Your task to perform on an android device: turn off smart reply in the gmail app Image 0: 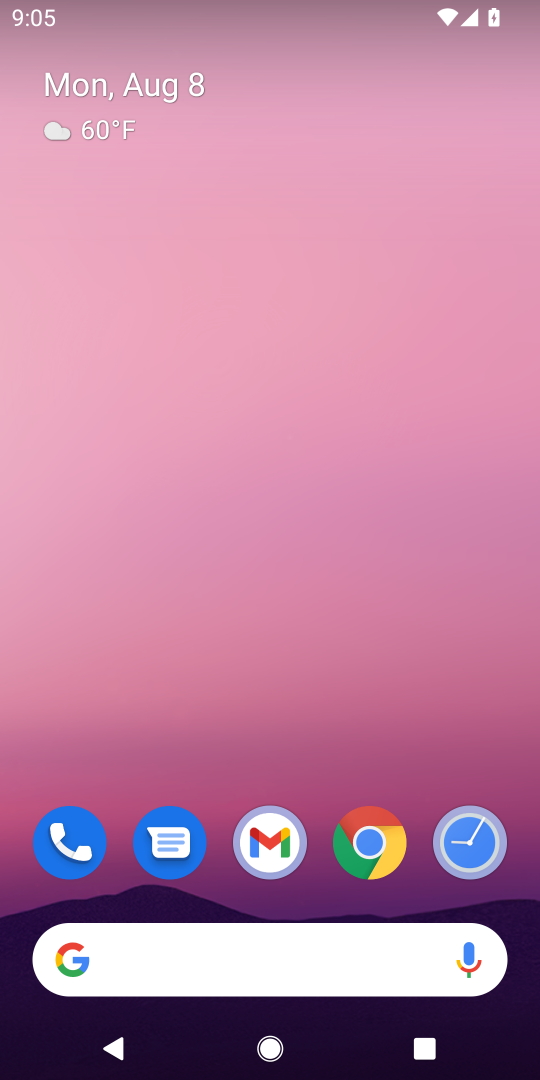
Step 0: click (269, 840)
Your task to perform on an android device: turn off smart reply in the gmail app Image 1: 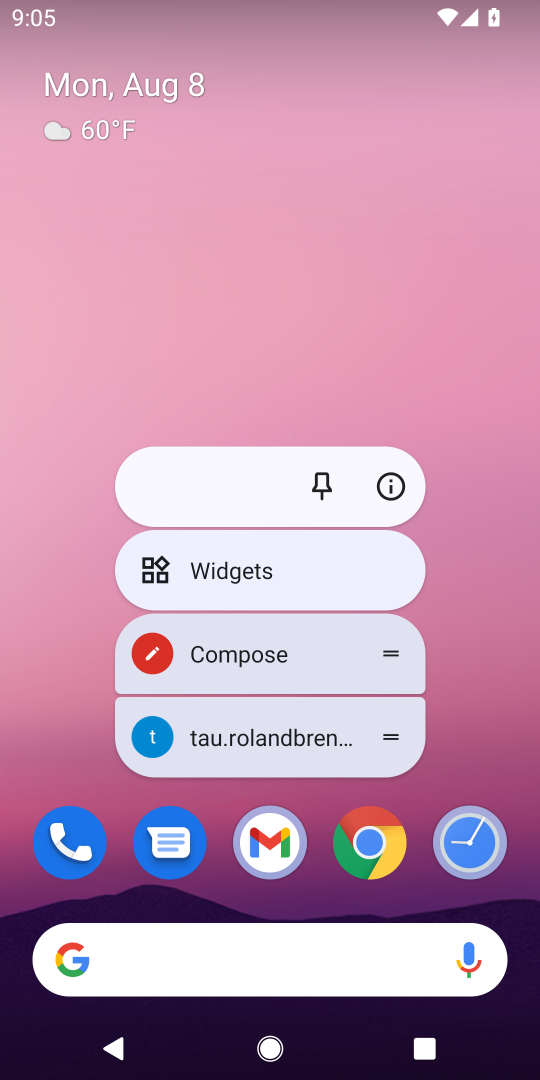
Step 1: click (269, 840)
Your task to perform on an android device: turn off smart reply in the gmail app Image 2: 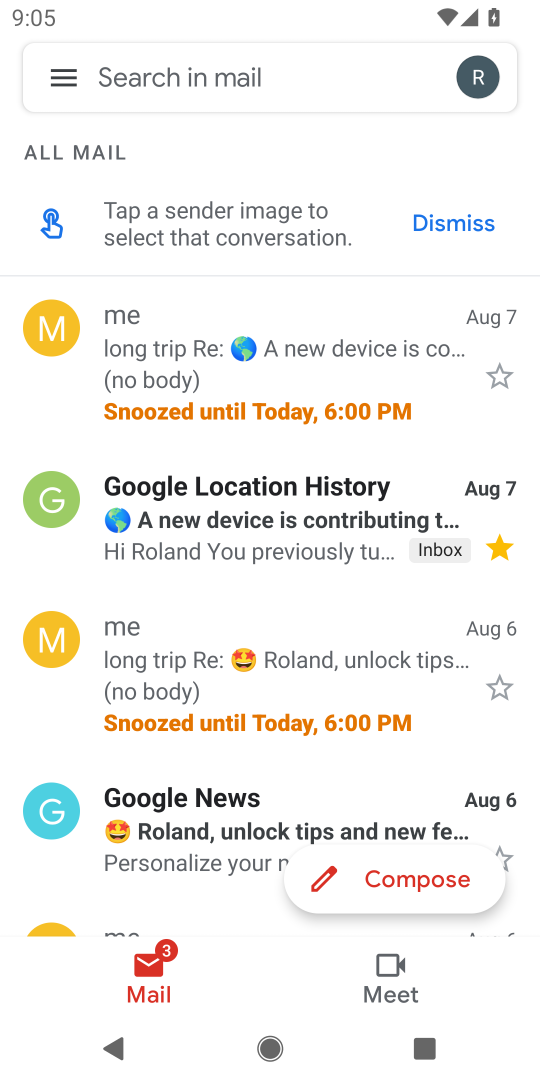
Step 2: click (70, 92)
Your task to perform on an android device: turn off smart reply in the gmail app Image 3: 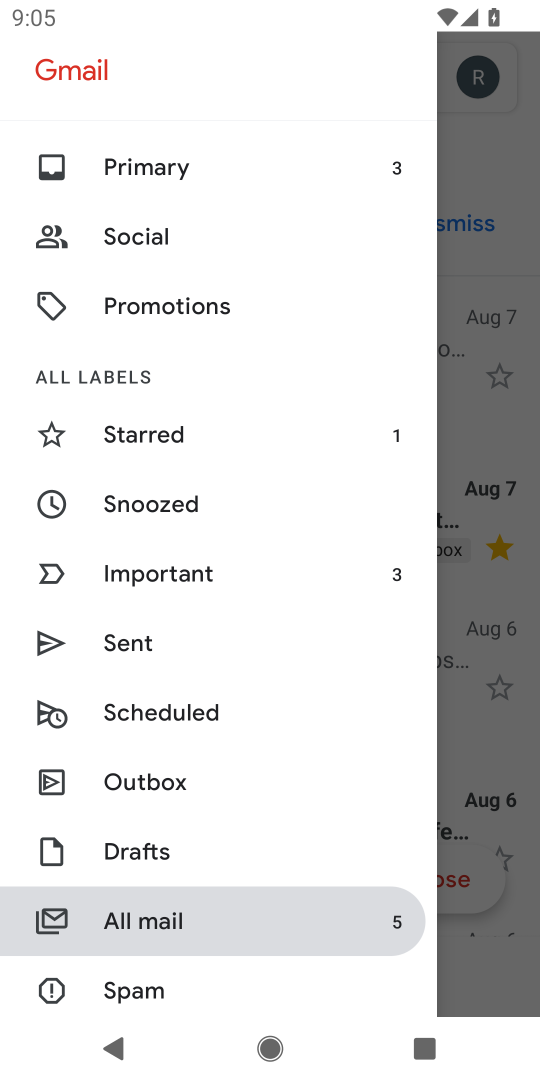
Step 3: drag from (159, 858) to (100, 160)
Your task to perform on an android device: turn off smart reply in the gmail app Image 4: 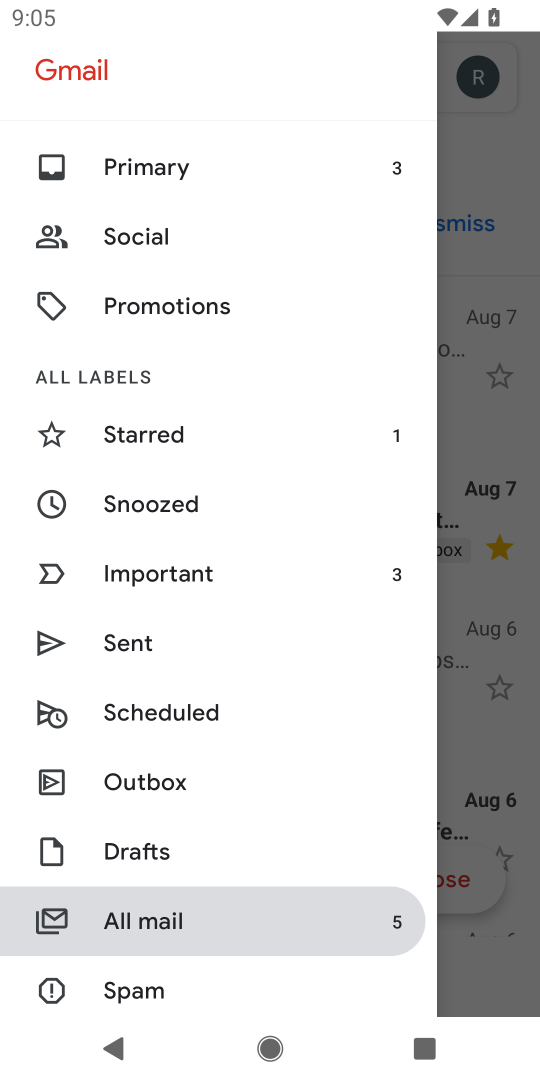
Step 4: drag from (161, 832) to (186, 29)
Your task to perform on an android device: turn off smart reply in the gmail app Image 5: 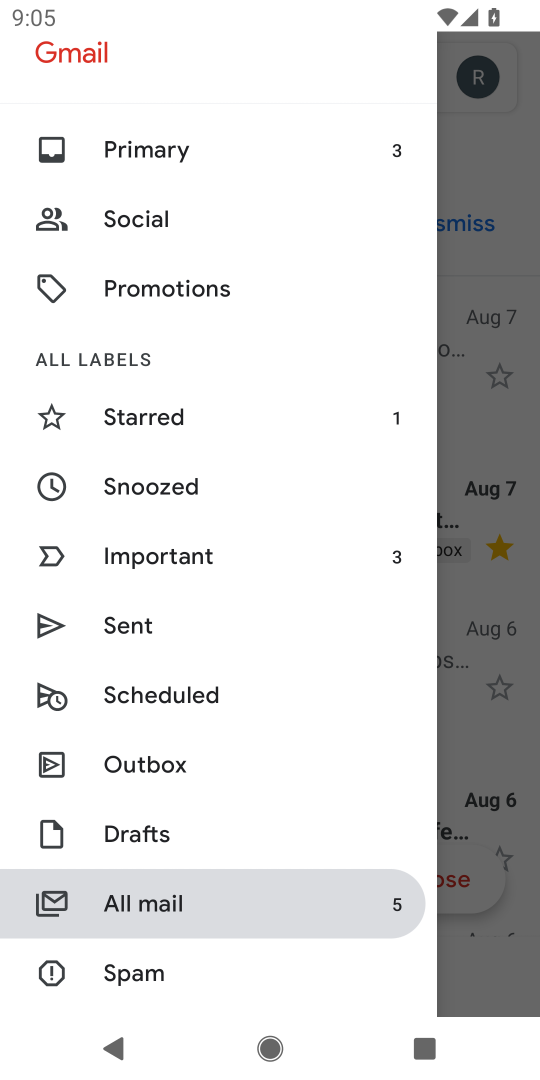
Step 5: drag from (221, 599) to (221, 195)
Your task to perform on an android device: turn off smart reply in the gmail app Image 6: 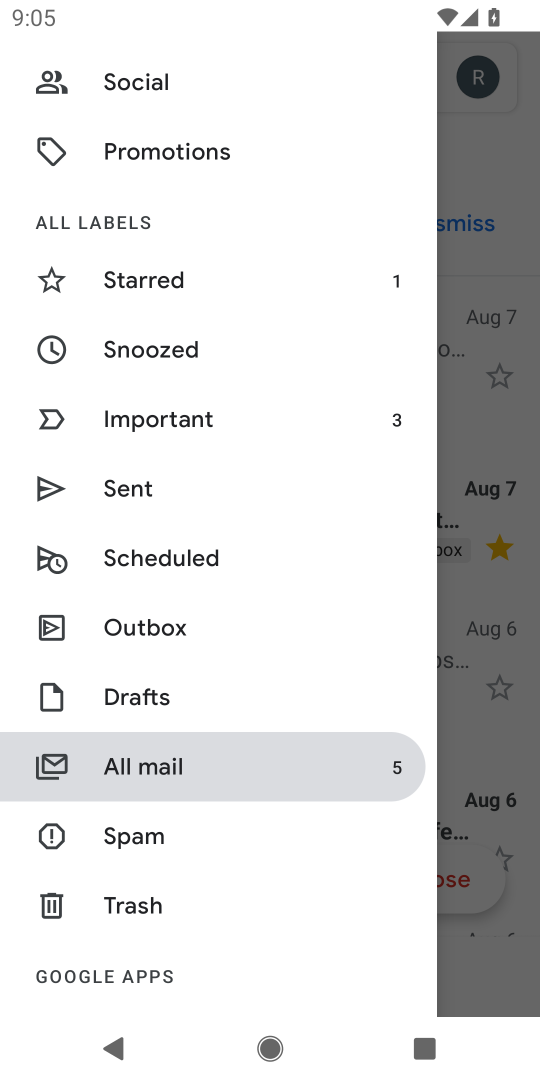
Step 6: drag from (263, 852) to (245, 213)
Your task to perform on an android device: turn off smart reply in the gmail app Image 7: 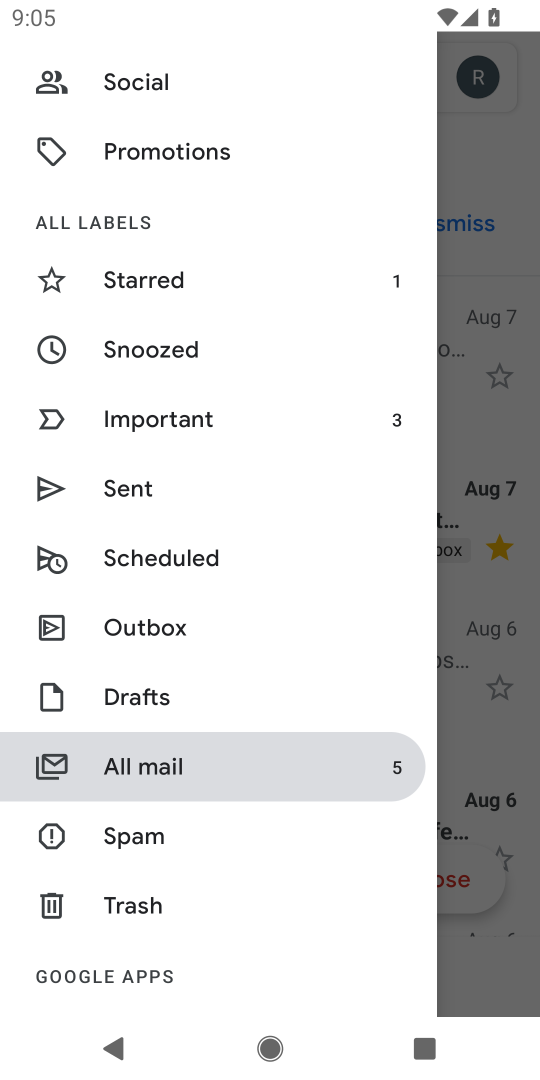
Step 7: drag from (156, 874) to (107, 391)
Your task to perform on an android device: turn off smart reply in the gmail app Image 8: 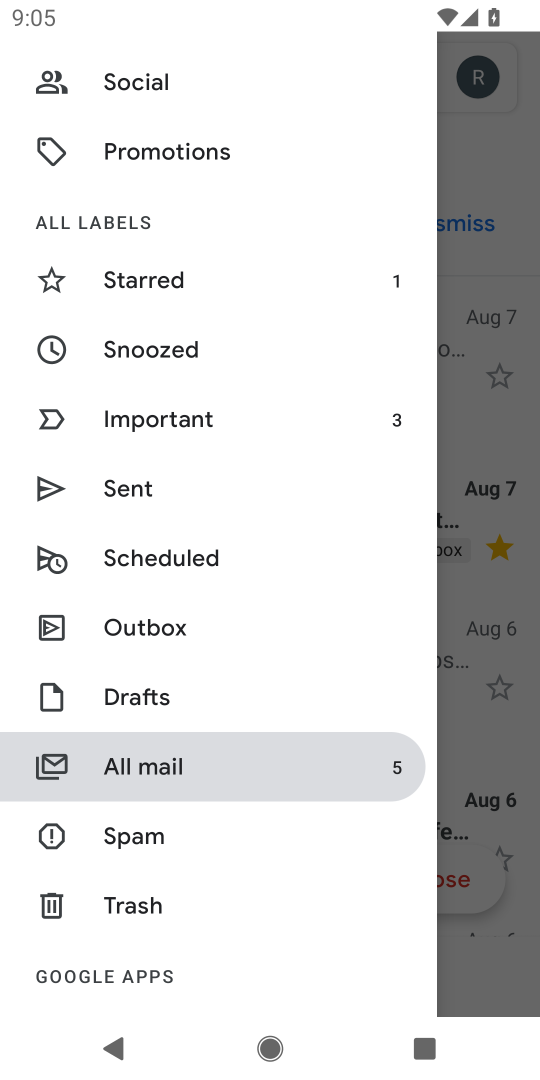
Step 8: drag from (208, 913) to (205, 269)
Your task to perform on an android device: turn off smart reply in the gmail app Image 9: 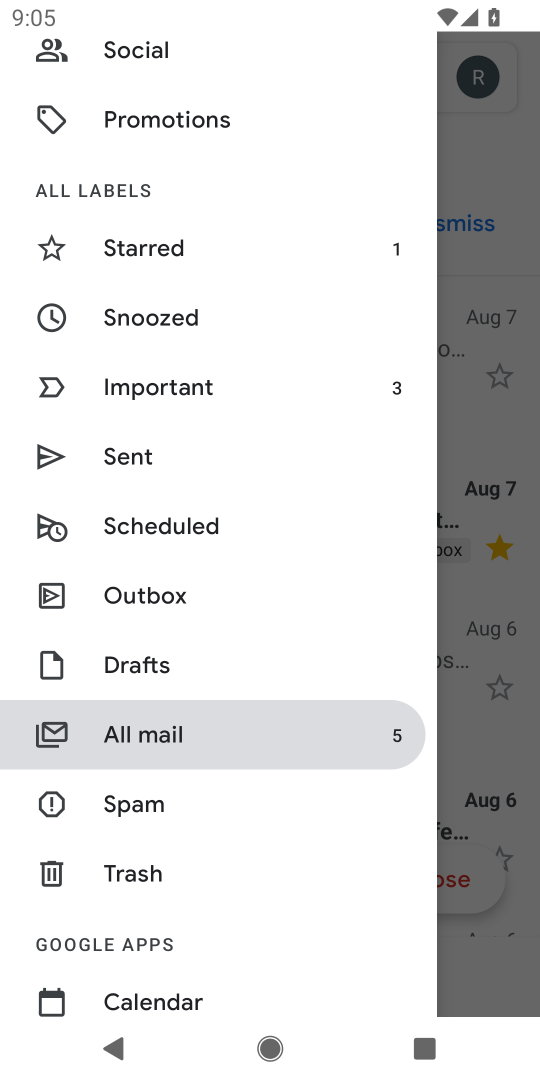
Step 9: drag from (209, 964) to (179, 351)
Your task to perform on an android device: turn off smart reply in the gmail app Image 10: 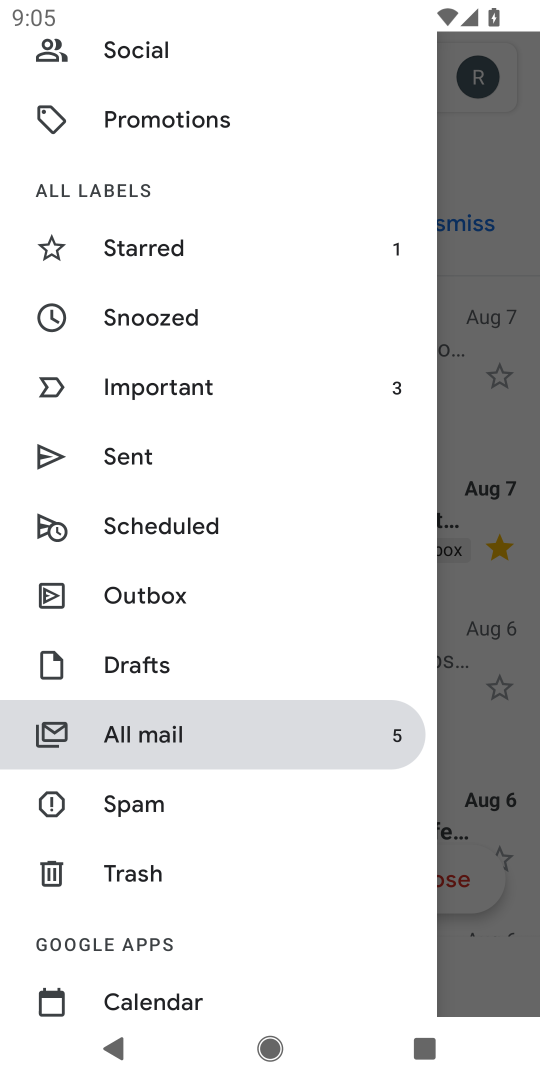
Step 10: drag from (191, 727) to (177, 93)
Your task to perform on an android device: turn off smart reply in the gmail app Image 11: 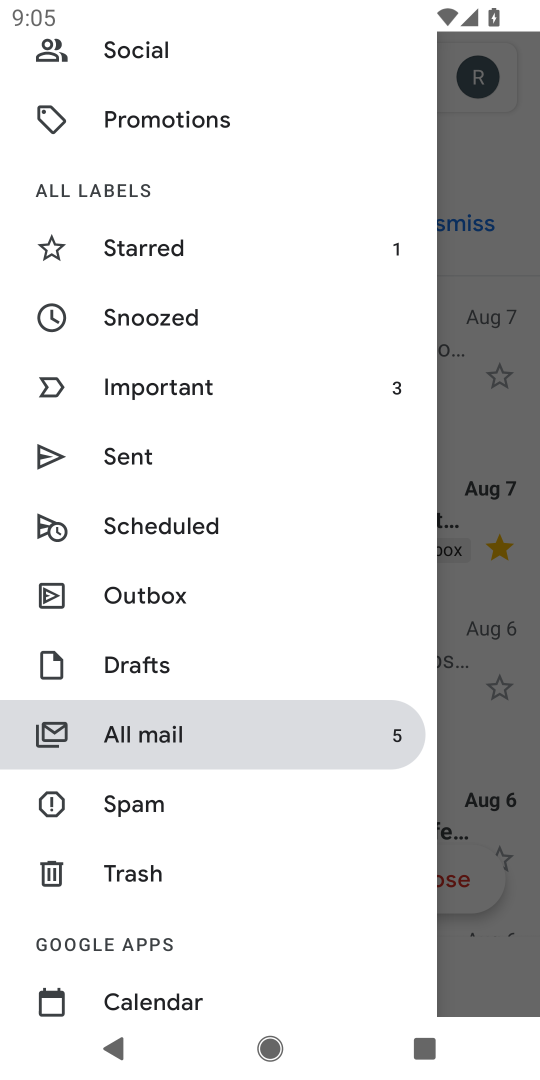
Step 11: drag from (208, 950) to (115, 316)
Your task to perform on an android device: turn off smart reply in the gmail app Image 12: 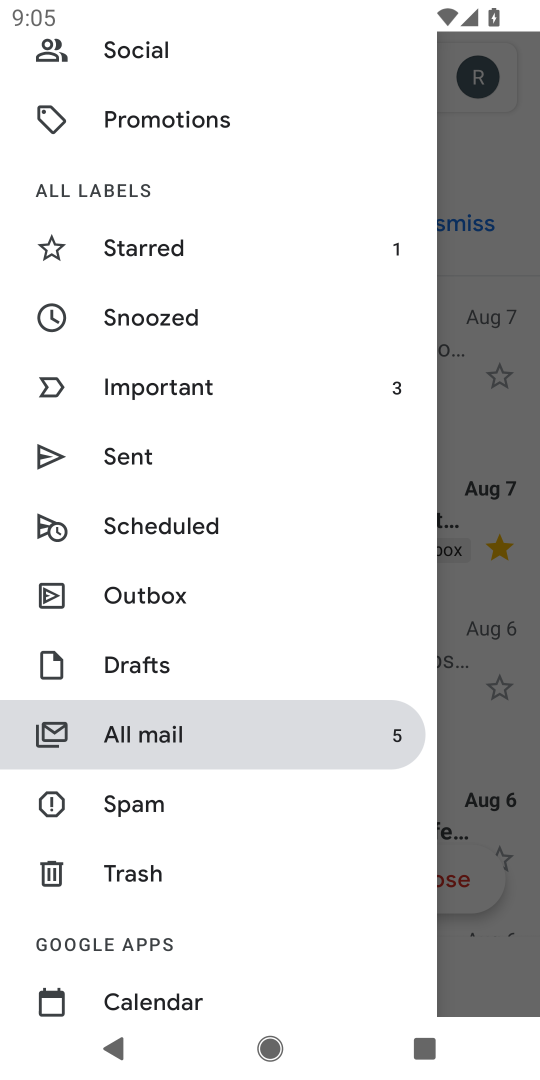
Step 12: drag from (199, 935) to (276, 220)
Your task to perform on an android device: turn off smart reply in the gmail app Image 13: 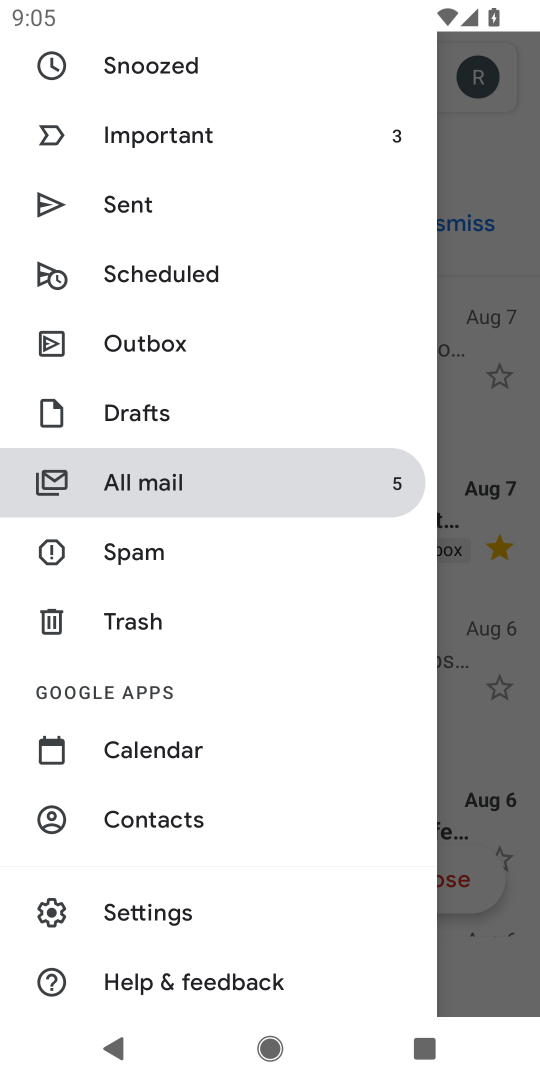
Step 13: click (213, 924)
Your task to perform on an android device: turn off smart reply in the gmail app Image 14: 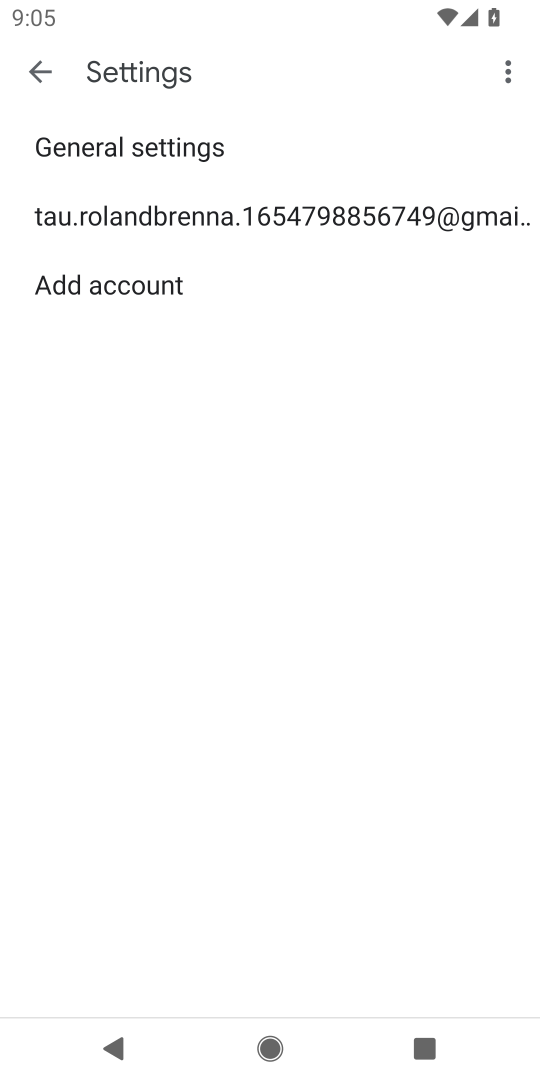
Step 14: click (351, 188)
Your task to perform on an android device: turn off smart reply in the gmail app Image 15: 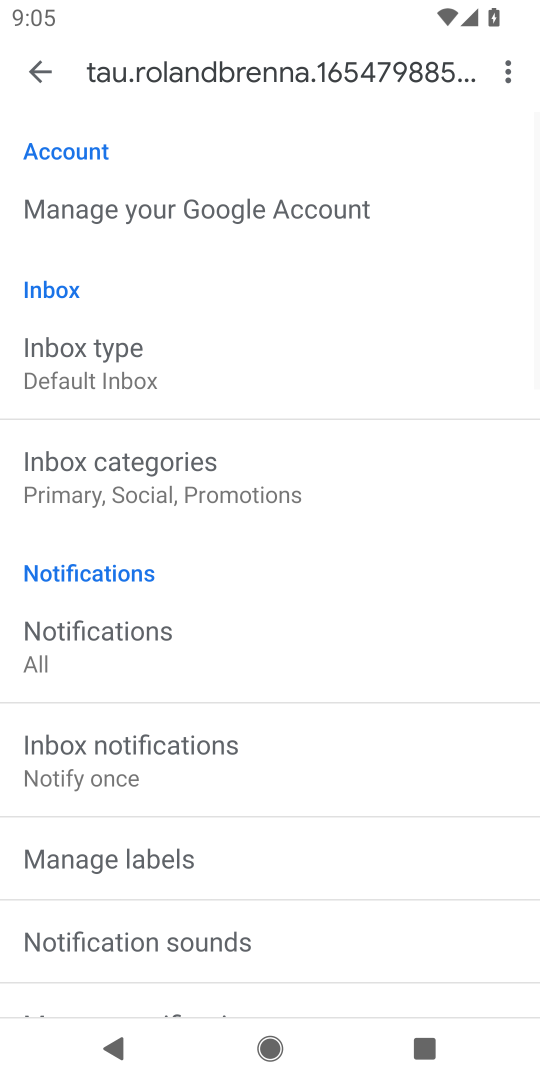
Step 15: drag from (244, 946) to (185, 129)
Your task to perform on an android device: turn off smart reply in the gmail app Image 16: 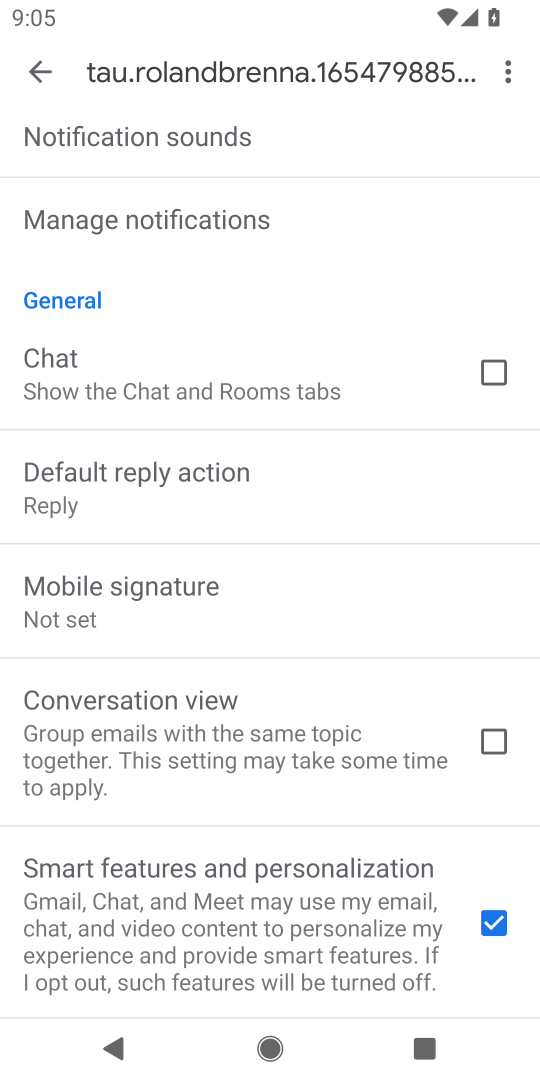
Step 16: drag from (204, 891) to (173, 290)
Your task to perform on an android device: turn off smart reply in the gmail app Image 17: 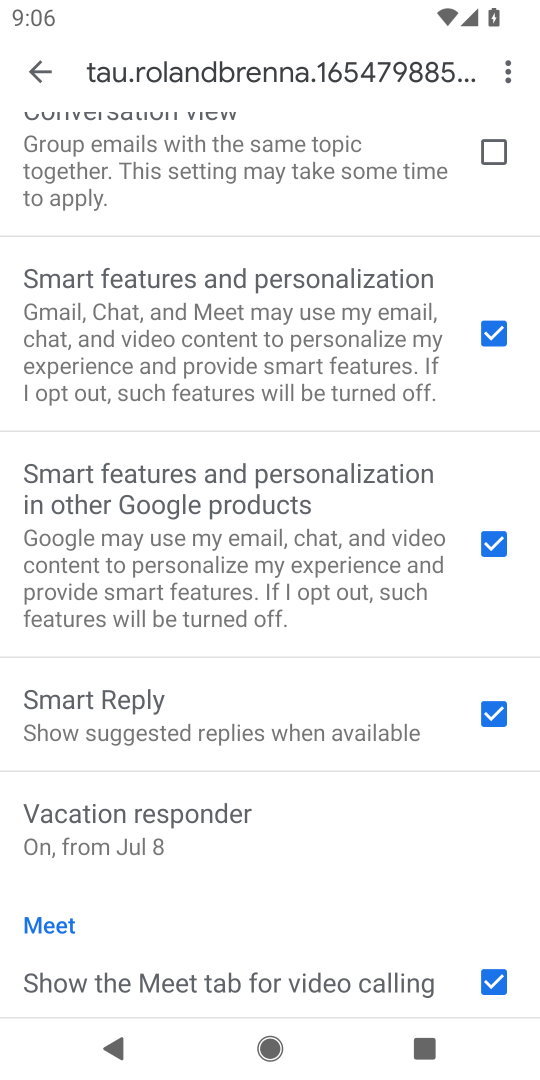
Step 17: click (479, 705)
Your task to perform on an android device: turn off smart reply in the gmail app Image 18: 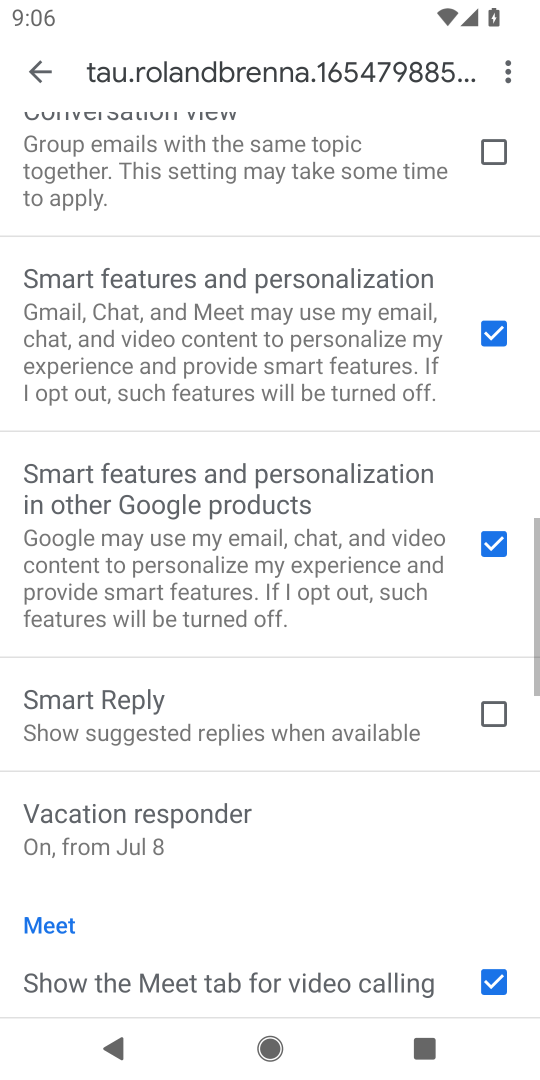
Step 18: task complete